Your task to perform on an android device: Go to Maps Image 0: 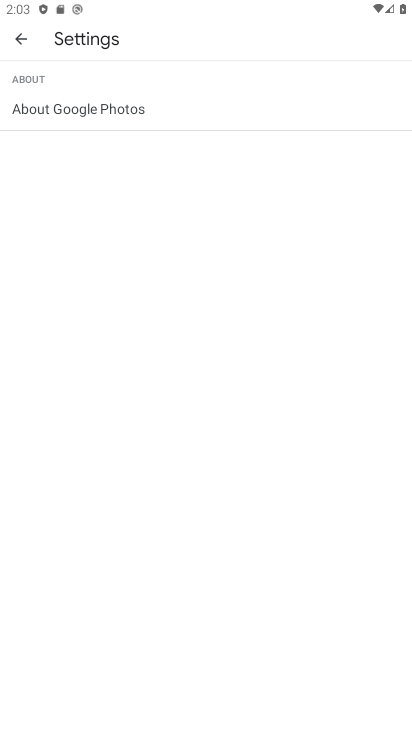
Step 0: press home button
Your task to perform on an android device: Go to Maps Image 1: 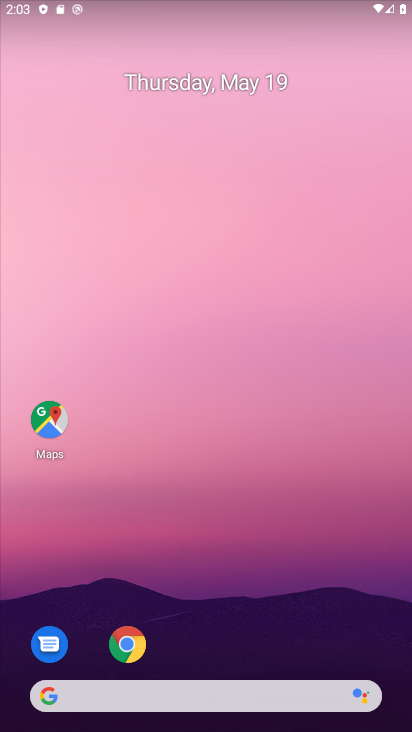
Step 1: drag from (225, 642) to (207, 268)
Your task to perform on an android device: Go to Maps Image 2: 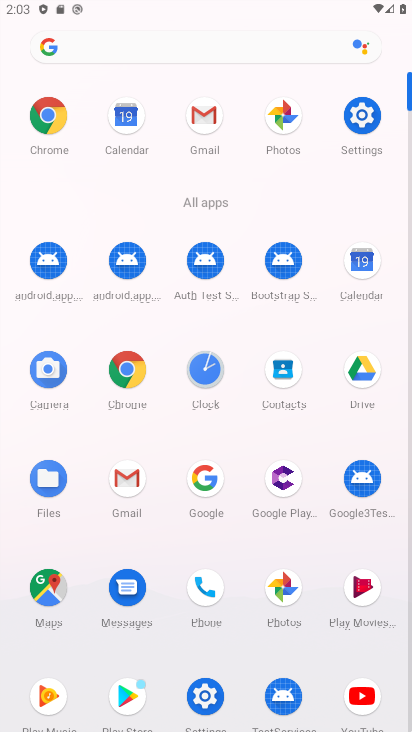
Step 2: click (45, 589)
Your task to perform on an android device: Go to Maps Image 3: 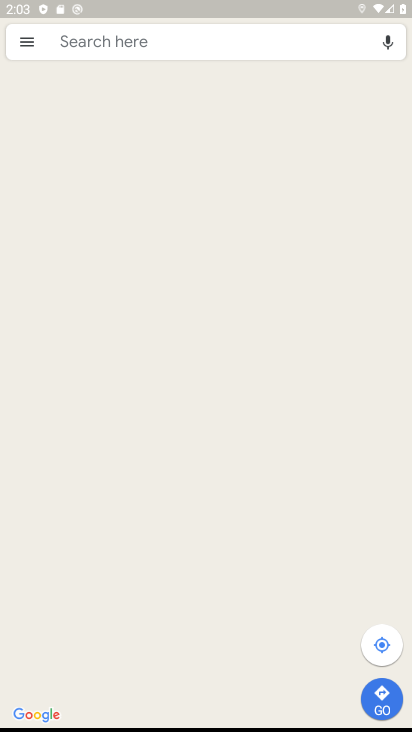
Step 3: task complete